Your task to perform on an android device: add a contact Image 0: 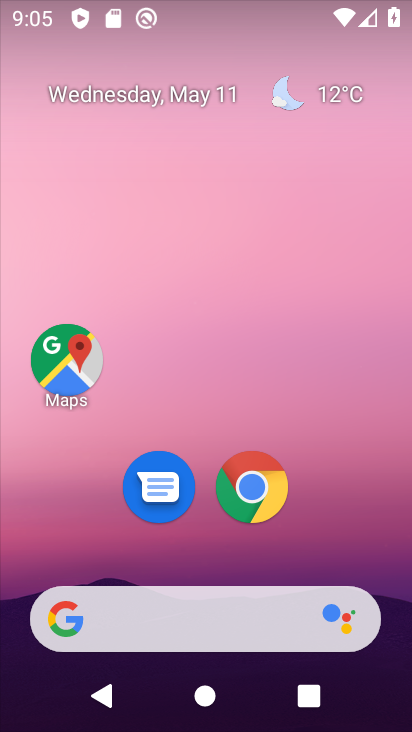
Step 0: drag from (354, 502) to (265, 7)
Your task to perform on an android device: add a contact Image 1: 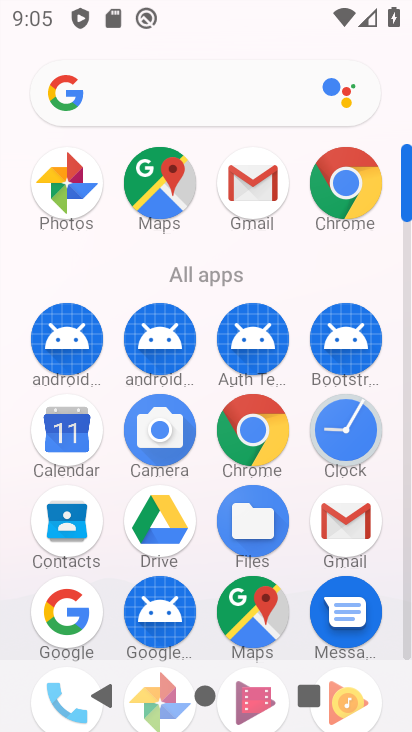
Step 1: click (68, 519)
Your task to perform on an android device: add a contact Image 2: 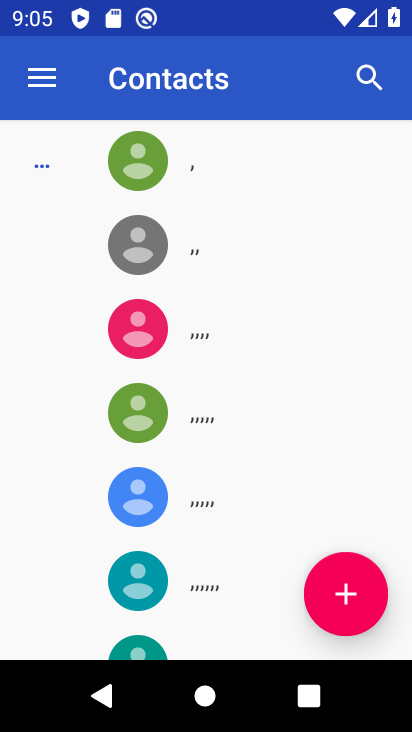
Step 2: click (345, 588)
Your task to perform on an android device: add a contact Image 3: 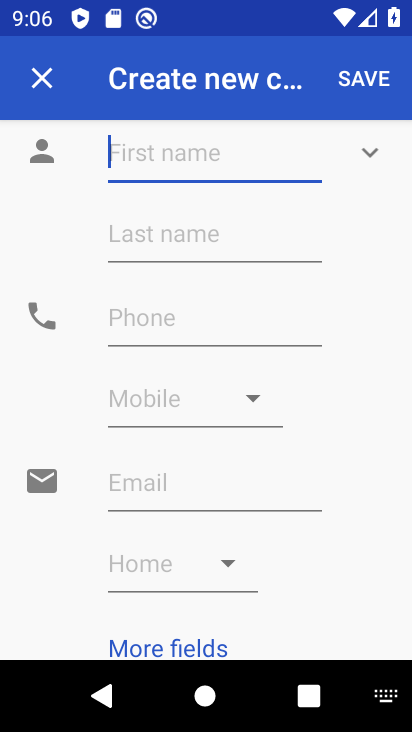
Step 3: type "Shriniwasan"
Your task to perform on an android device: add a contact Image 4: 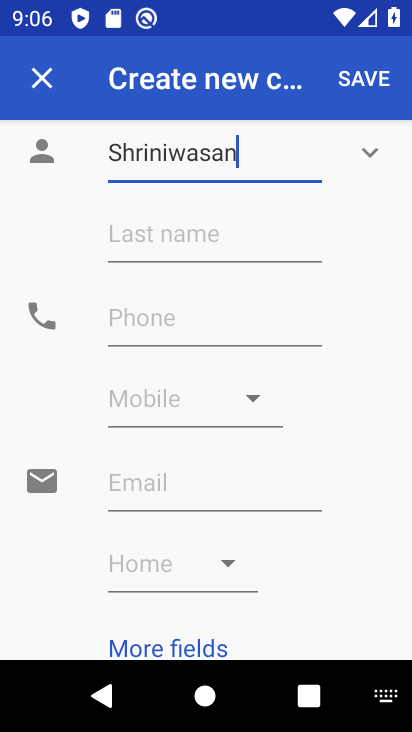
Step 4: click (211, 249)
Your task to perform on an android device: add a contact Image 5: 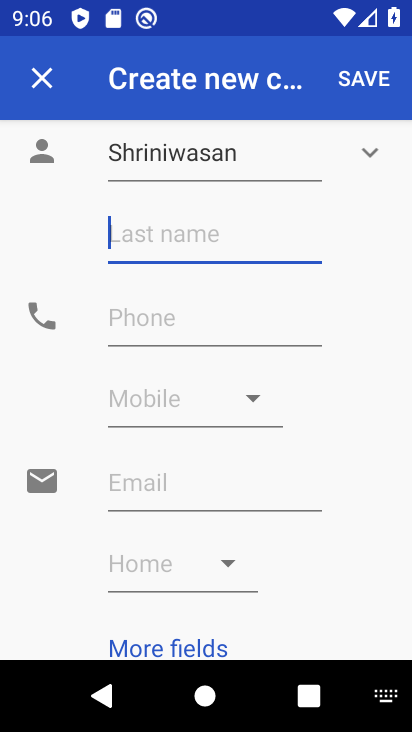
Step 5: type "Reddy"
Your task to perform on an android device: add a contact Image 6: 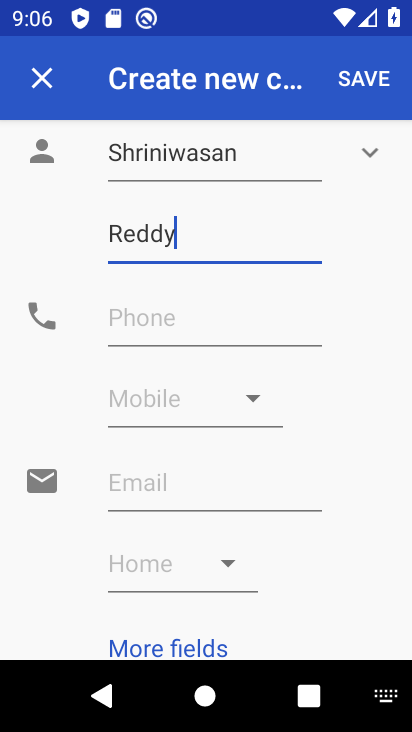
Step 6: click (180, 334)
Your task to perform on an android device: add a contact Image 7: 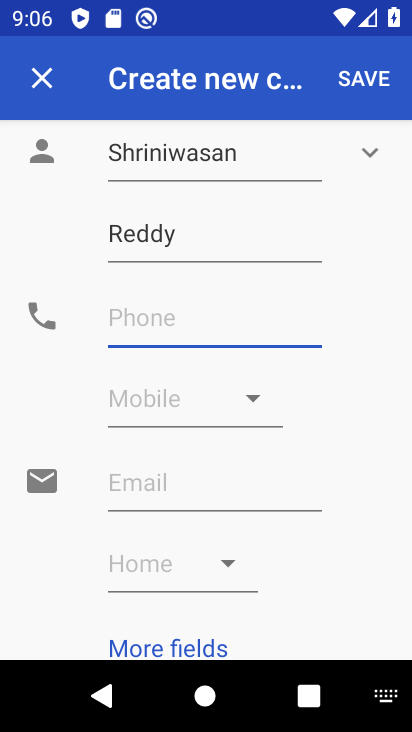
Step 7: type "0987654321"
Your task to perform on an android device: add a contact Image 8: 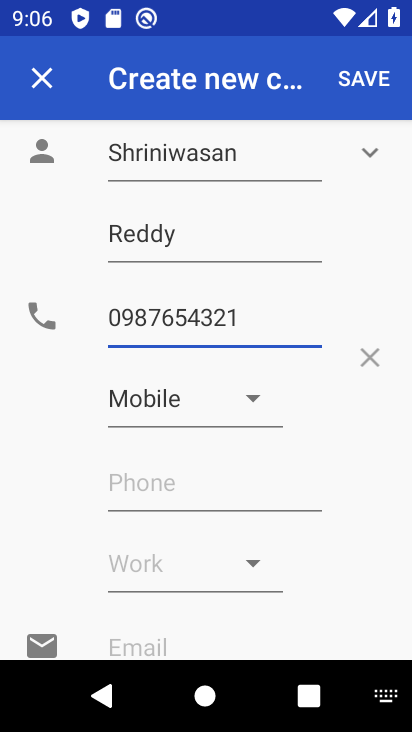
Step 8: click (350, 77)
Your task to perform on an android device: add a contact Image 9: 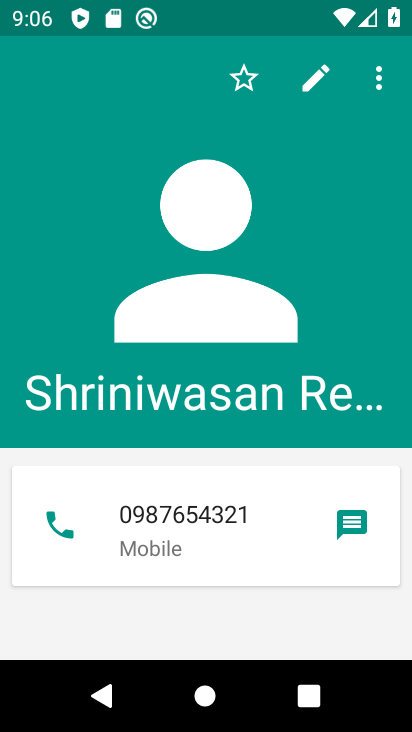
Step 9: task complete